Your task to perform on an android device: Go to Reddit.com Image 0: 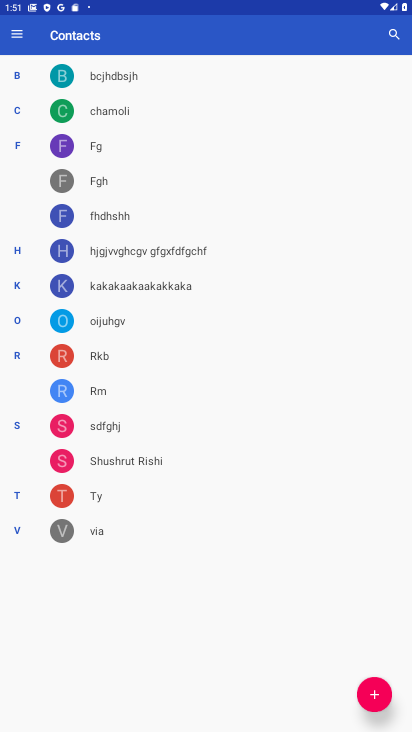
Step 0: press home button
Your task to perform on an android device: Go to Reddit.com Image 1: 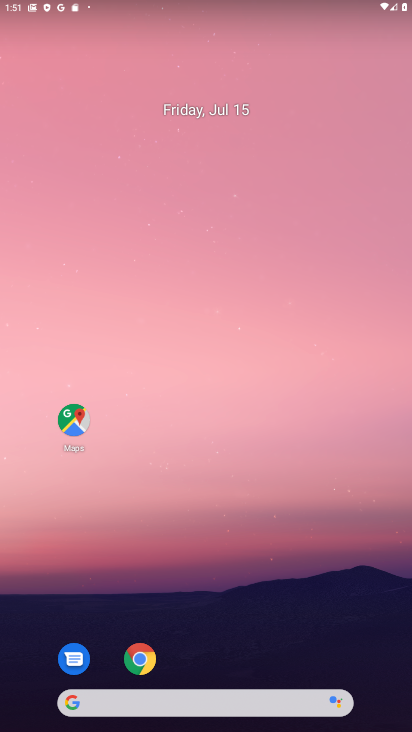
Step 1: click (146, 658)
Your task to perform on an android device: Go to Reddit.com Image 2: 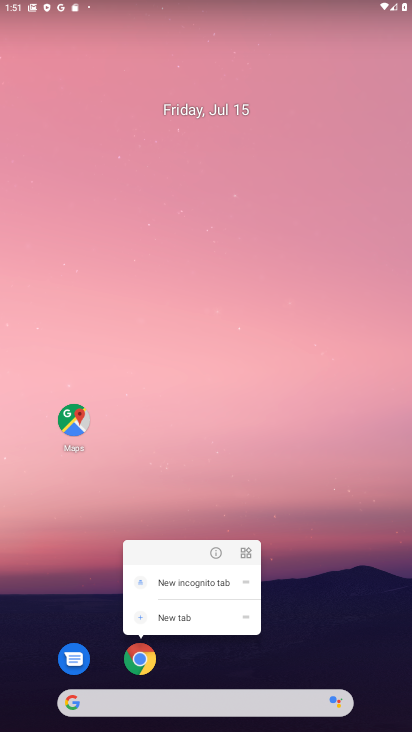
Step 2: click (146, 658)
Your task to perform on an android device: Go to Reddit.com Image 3: 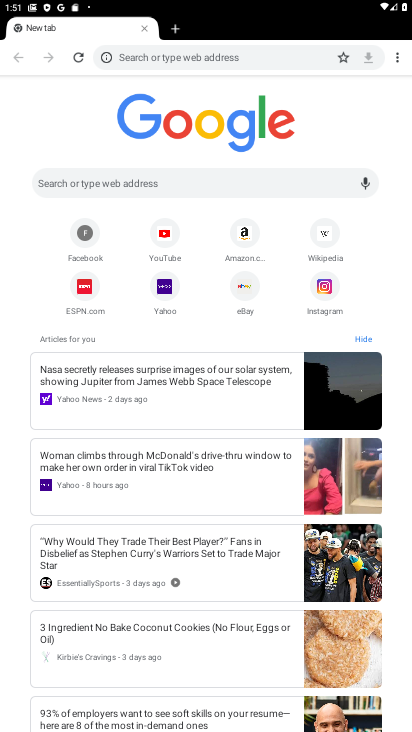
Step 3: click (224, 61)
Your task to perform on an android device: Go to Reddit.com Image 4: 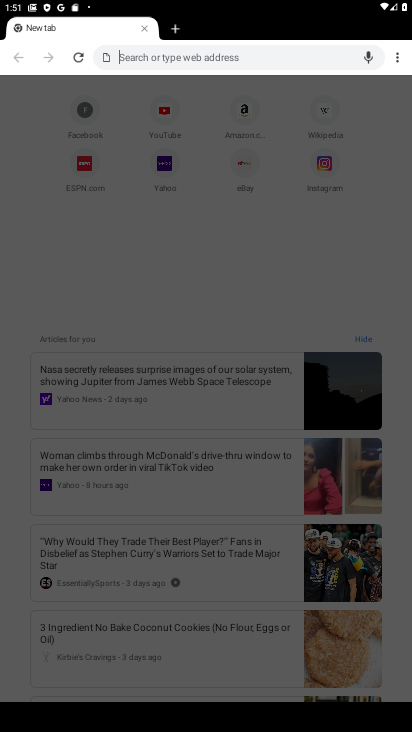
Step 4: type "reddit.com"
Your task to perform on an android device: Go to Reddit.com Image 5: 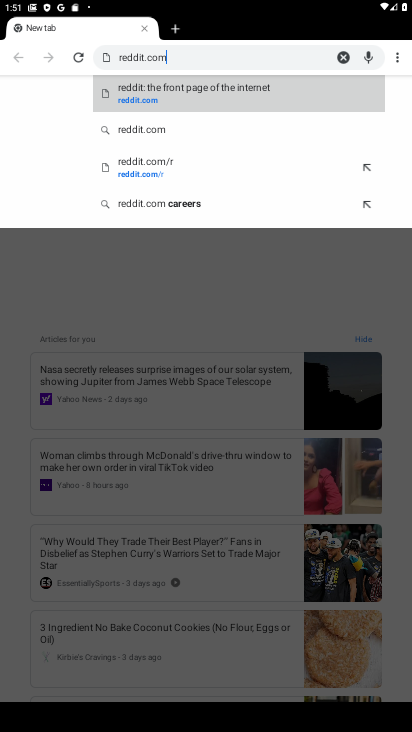
Step 5: click (188, 89)
Your task to perform on an android device: Go to Reddit.com Image 6: 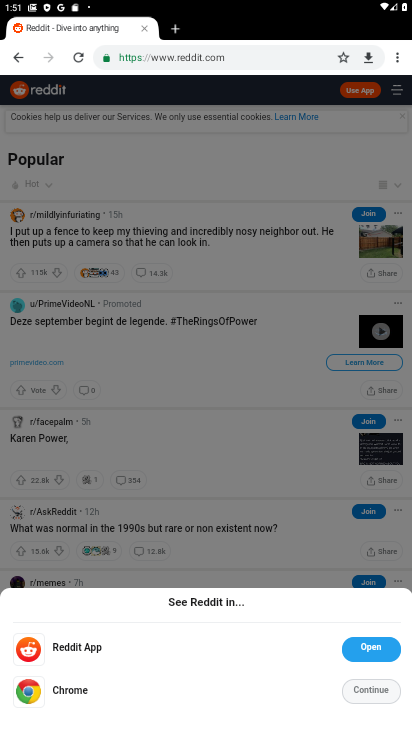
Step 6: task complete